Your task to perform on an android device: turn off location Image 0: 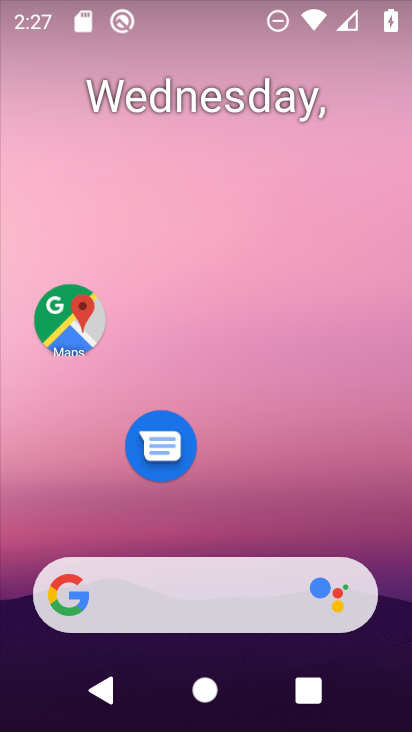
Step 0: drag from (295, 499) to (254, 16)
Your task to perform on an android device: turn off location Image 1: 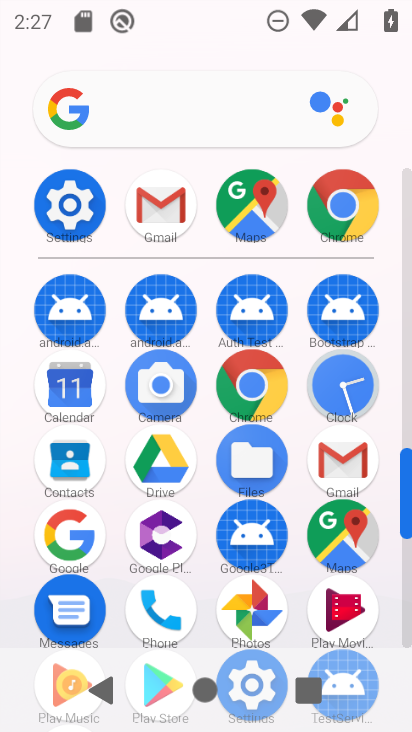
Step 1: click (93, 219)
Your task to perform on an android device: turn off location Image 2: 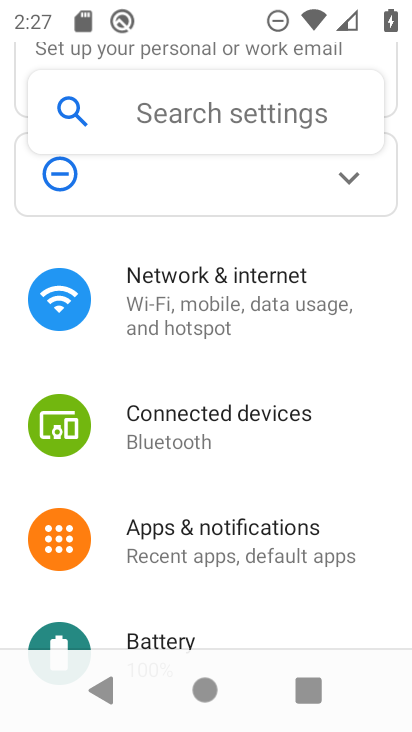
Step 2: drag from (274, 537) to (243, 124)
Your task to perform on an android device: turn off location Image 3: 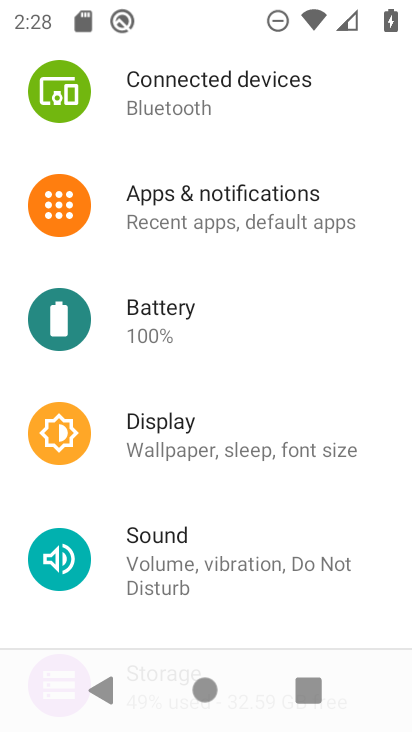
Step 3: drag from (223, 469) to (224, 160)
Your task to perform on an android device: turn off location Image 4: 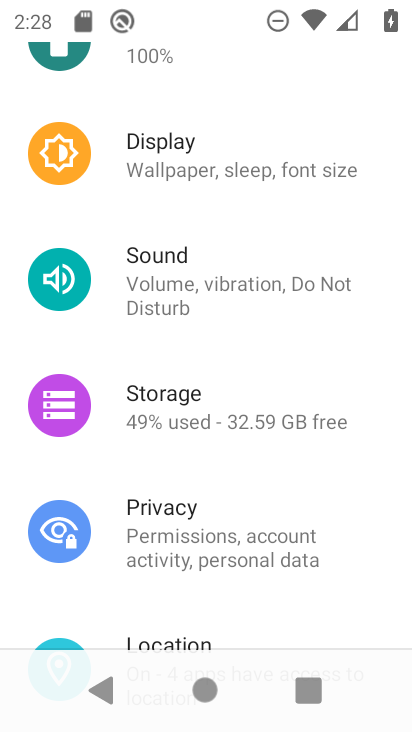
Step 4: drag from (314, 562) to (180, 156)
Your task to perform on an android device: turn off location Image 5: 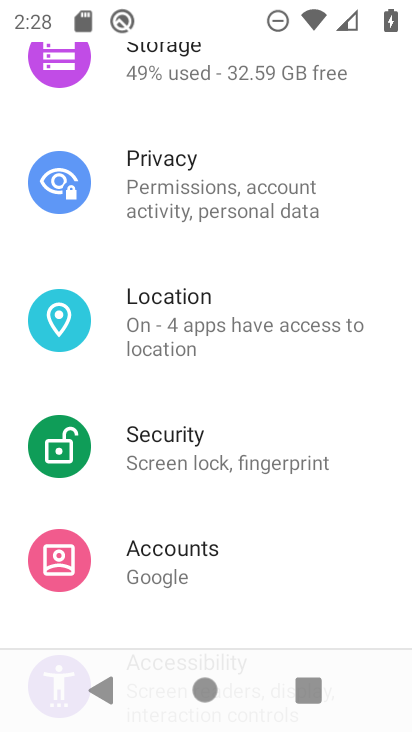
Step 5: click (230, 358)
Your task to perform on an android device: turn off location Image 6: 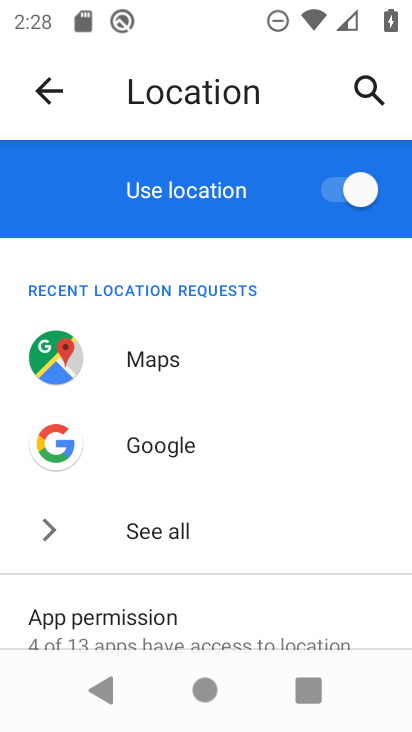
Step 6: click (320, 202)
Your task to perform on an android device: turn off location Image 7: 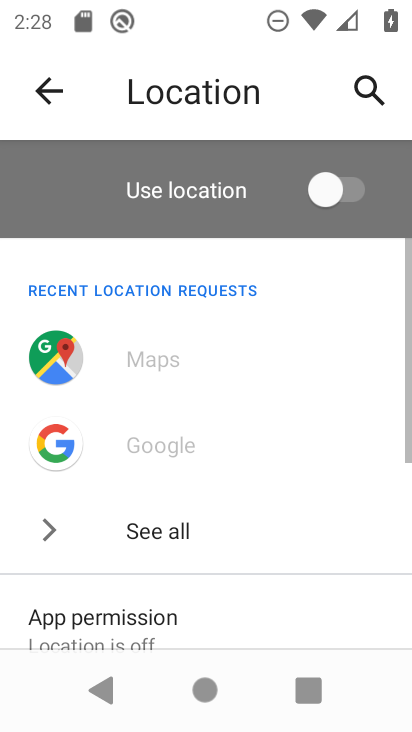
Step 7: task complete